Your task to perform on an android device: Do I have any events today? Image 0: 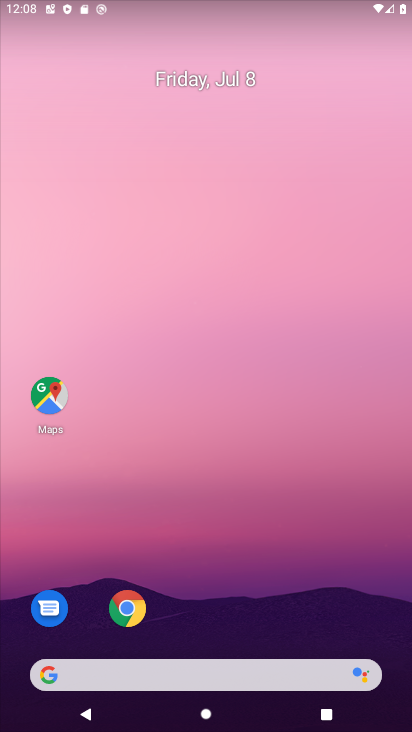
Step 0: drag from (270, 632) to (243, 119)
Your task to perform on an android device: Do I have any events today? Image 1: 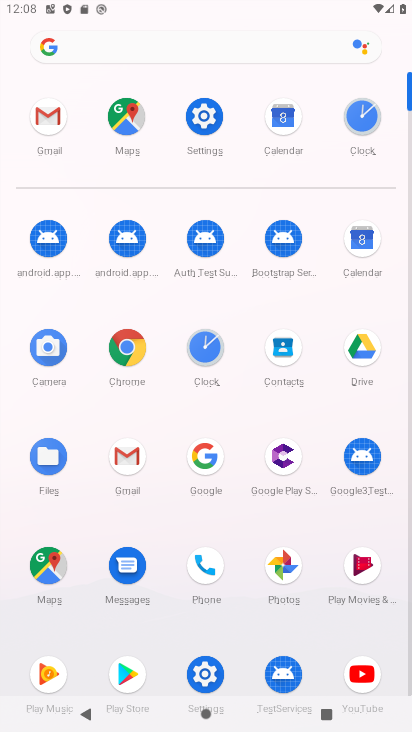
Step 1: click (280, 136)
Your task to perform on an android device: Do I have any events today? Image 2: 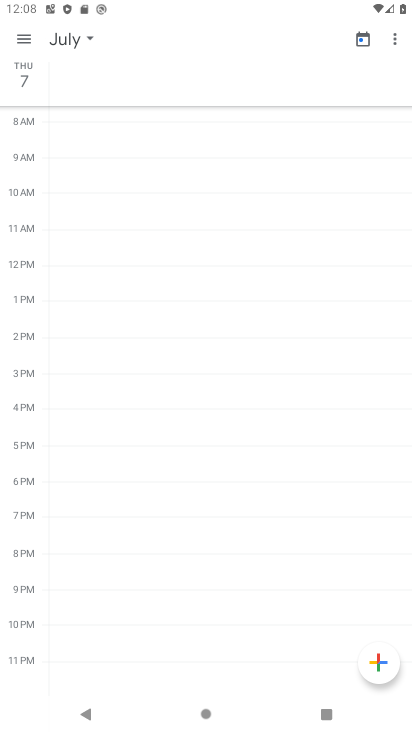
Step 2: task complete